Your task to perform on an android device: Open calendar and show me the fourth week of next month Image 0: 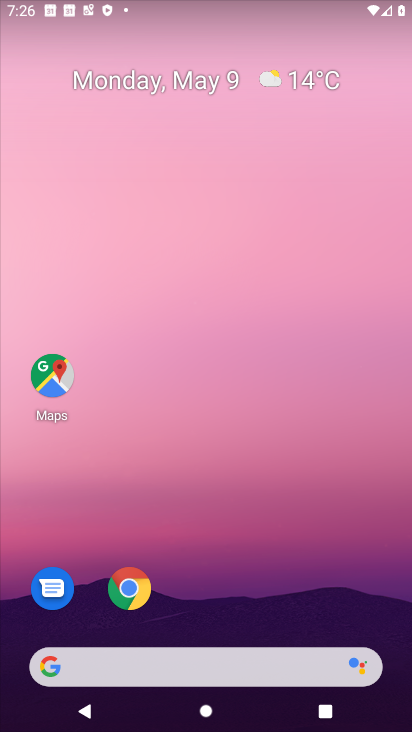
Step 0: drag from (328, 625) to (213, 94)
Your task to perform on an android device: Open calendar and show me the fourth week of next month Image 1: 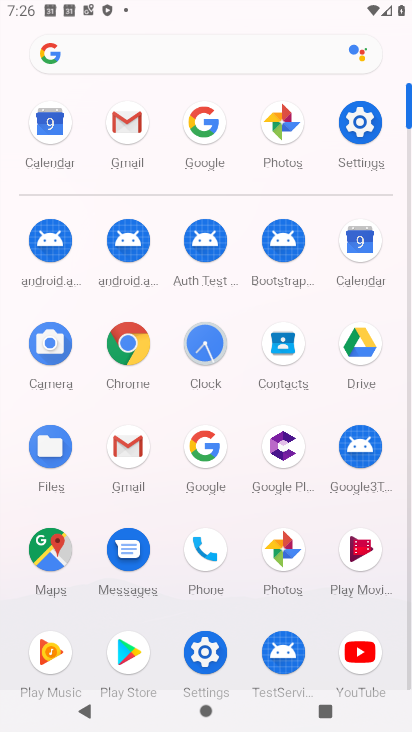
Step 1: click (355, 269)
Your task to perform on an android device: Open calendar and show me the fourth week of next month Image 2: 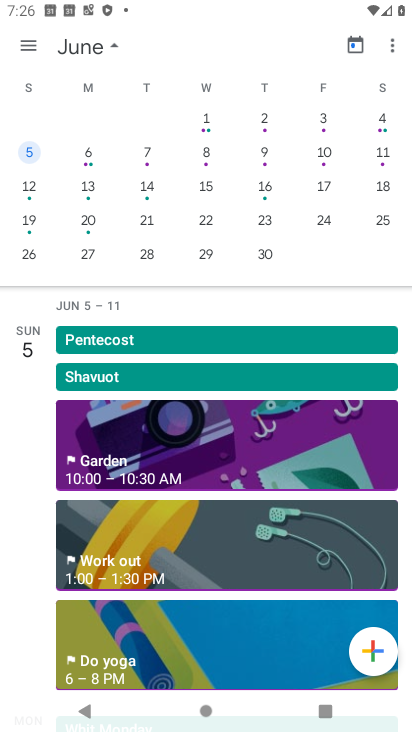
Step 2: drag from (355, 205) to (58, 162)
Your task to perform on an android device: Open calendar and show me the fourth week of next month Image 3: 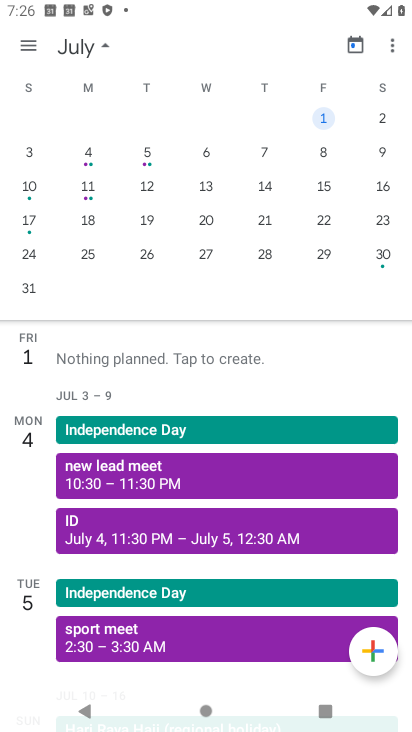
Step 3: click (383, 258)
Your task to perform on an android device: Open calendar and show me the fourth week of next month Image 4: 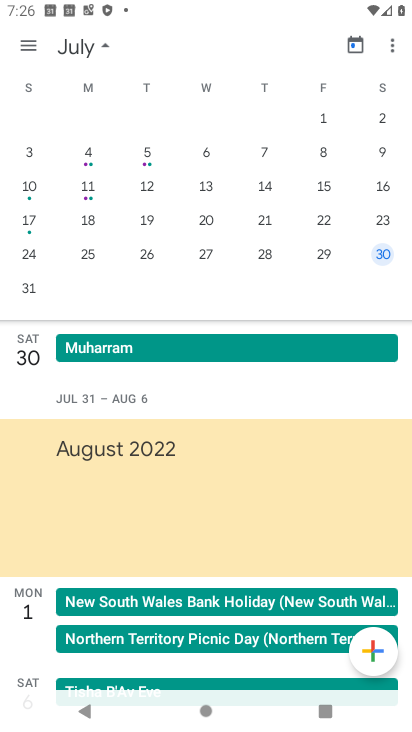
Step 4: task complete